Your task to perform on an android device: move a message to another label in the gmail app Image 0: 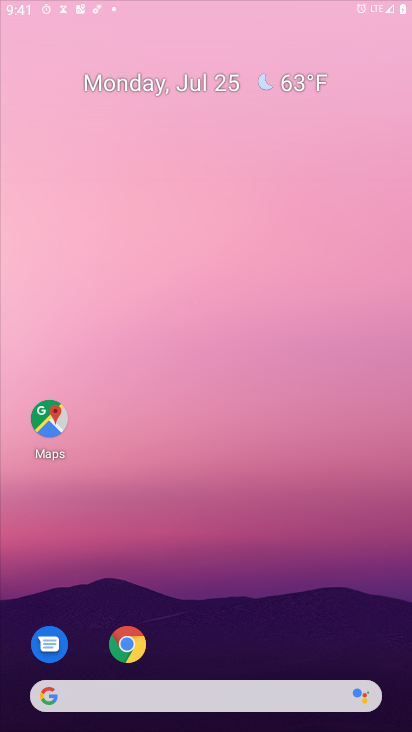
Step 0: drag from (229, 287) to (229, 225)
Your task to perform on an android device: move a message to another label in the gmail app Image 1: 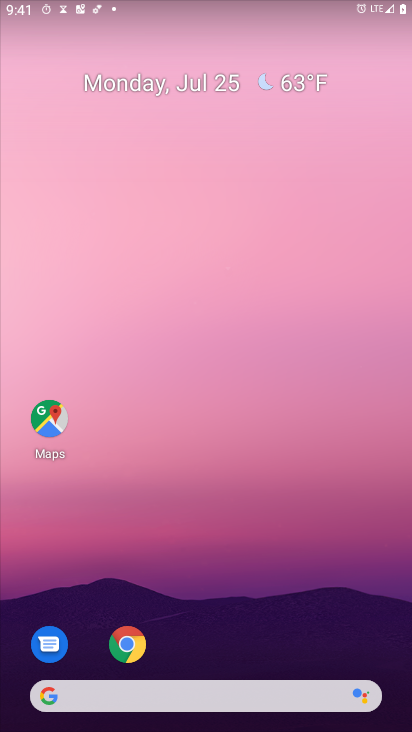
Step 1: drag from (249, 407) to (199, 3)
Your task to perform on an android device: move a message to another label in the gmail app Image 2: 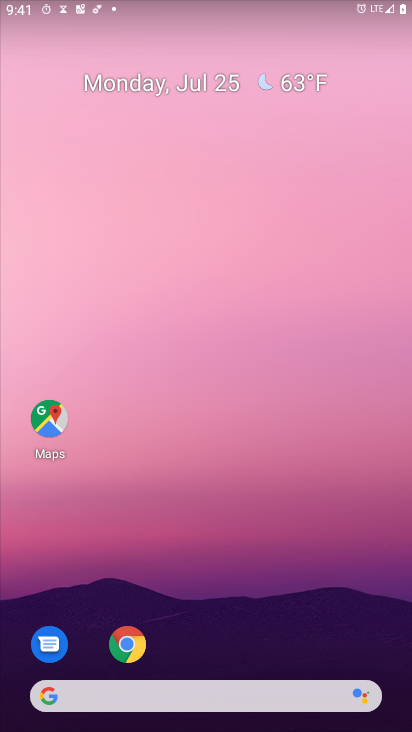
Step 2: drag from (209, 566) to (188, 135)
Your task to perform on an android device: move a message to another label in the gmail app Image 3: 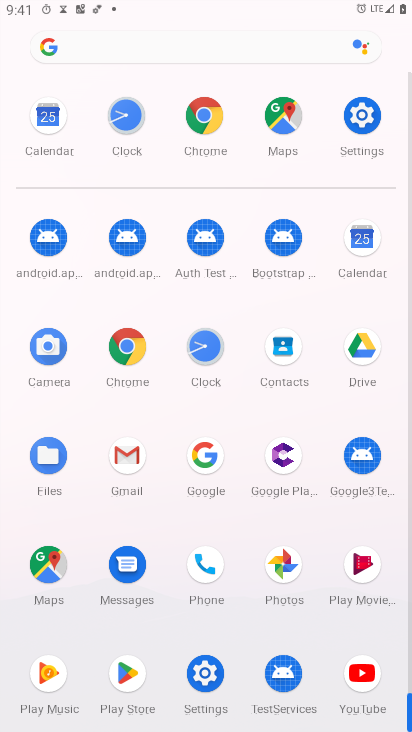
Step 3: drag from (223, 645) to (259, 31)
Your task to perform on an android device: move a message to another label in the gmail app Image 4: 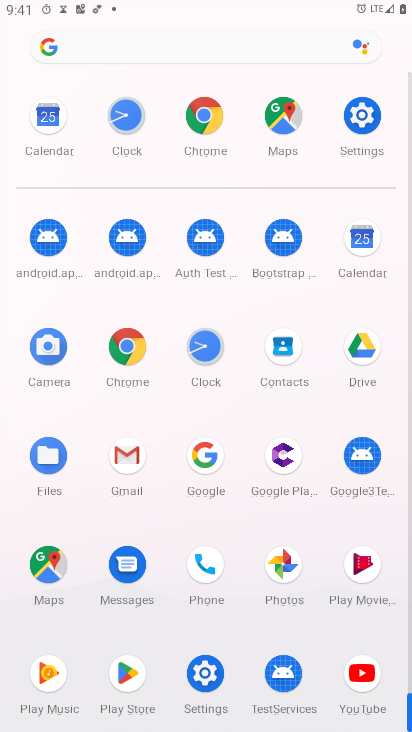
Step 4: click (130, 451)
Your task to perform on an android device: move a message to another label in the gmail app Image 5: 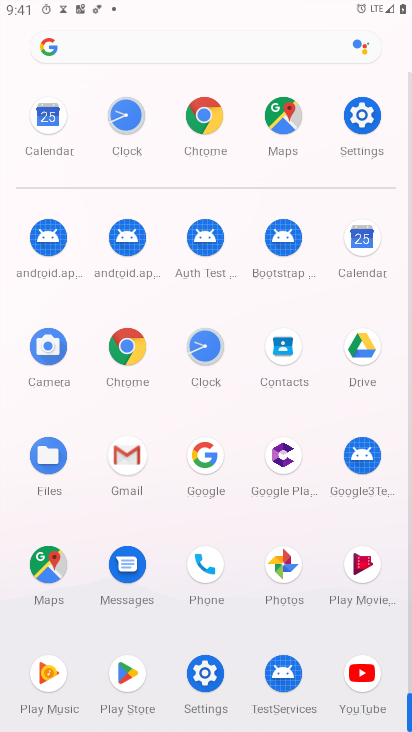
Step 5: click (130, 450)
Your task to perform on an android device: move a message to another label in the gmail app Image 6: 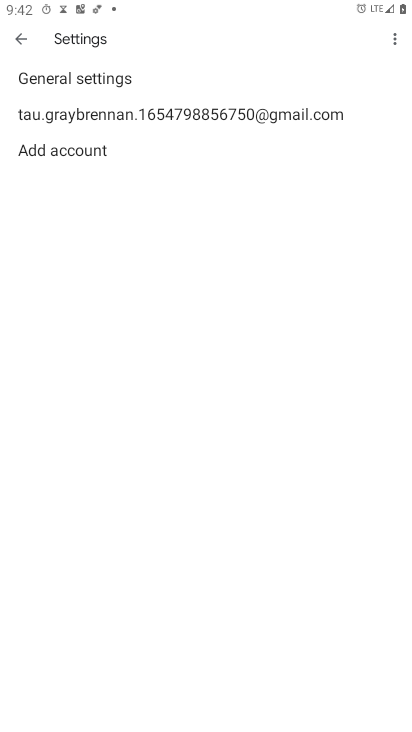
Step 6: click (76, 114)
Your task to perform on an android device: move a message to another label in the gmail app Image 7: 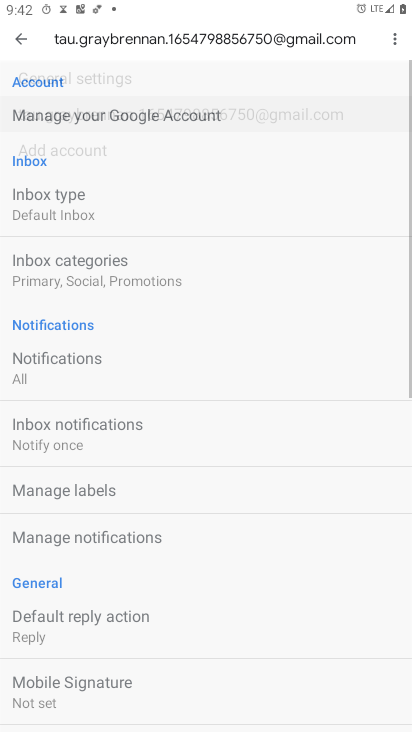
Step 7: click (20, 38)
Your task to perform on an android device: move a message to another label in the gmail app Image 8: 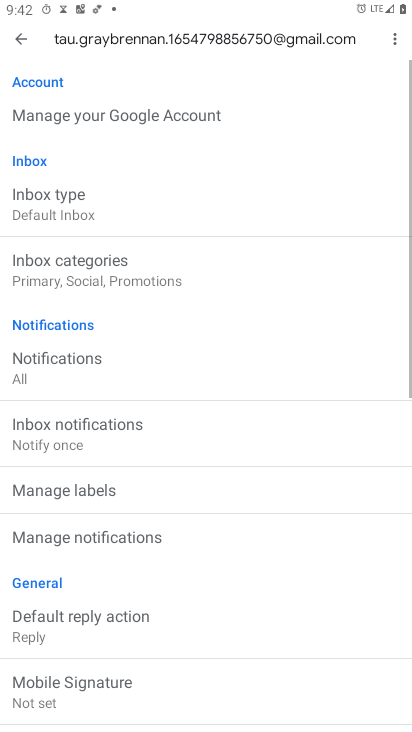
Step 8: click (9, 20)
Your task to perform on an android device: move a message to another label in the gmail app Image 9: 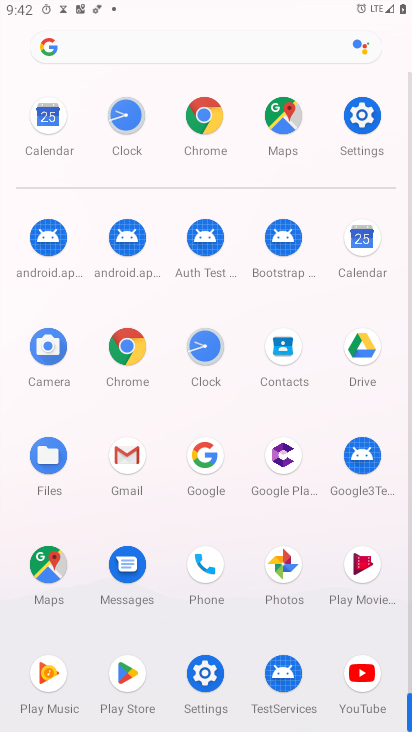
Step 9: click (28, 41)
Your task to perform on an android device: move a message to another label in the gmail app Image 10: 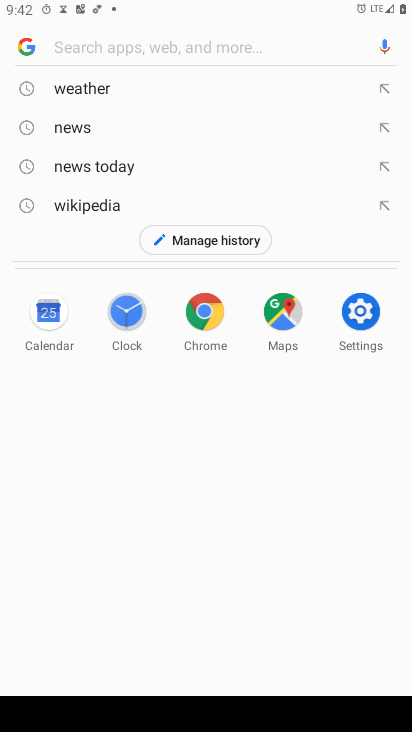
Step 10: press back button
Your task to perform on an android device: move a message to another label in the gmail app Image 11: 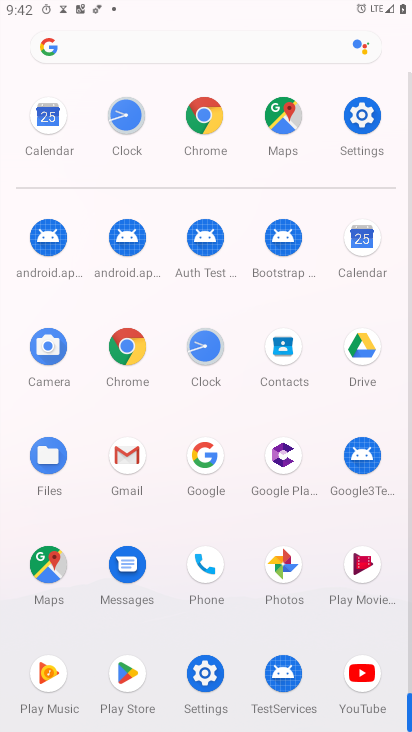
Step 11: click (143, 456)
Your task to perform on an android device: move a message to another label in the gmail app Image 12: 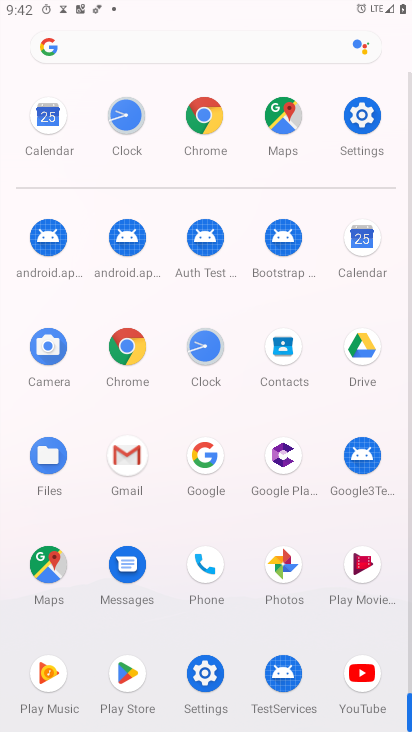
Step 12: click (138, 452)
Your task to perform on an android device: move a message to another label in the gmail app Image 13: 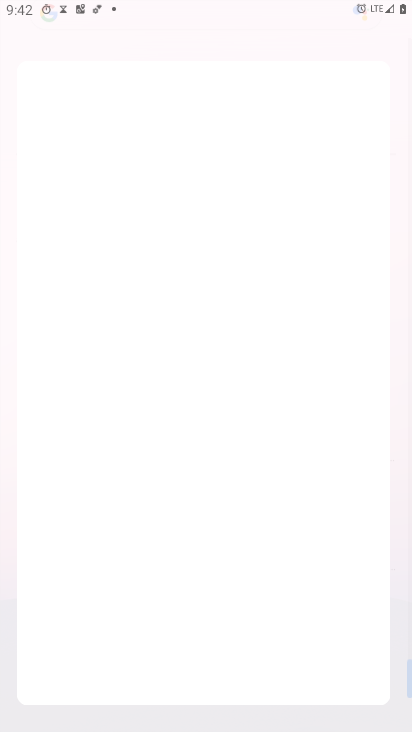
Step 13: click (137, 451)
Your task to perform on an android device: move a message to another label in the gmail app Image 14: 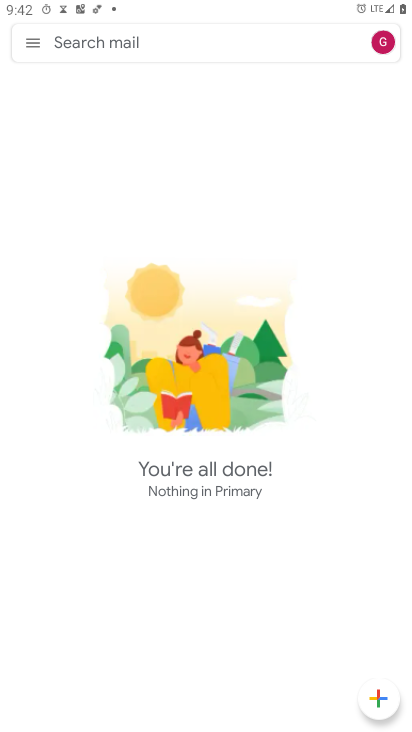
Step 14: click (34, 44)
Your task to perform on an android device: move a message to another label in the gmail app Image 15: 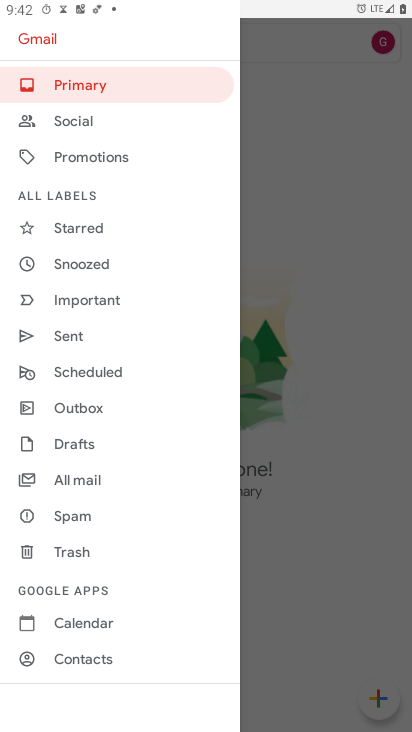
Step 15: click (102, 469)
Your task to perform on an android device: move a message to another label in the gmail app Image 16: 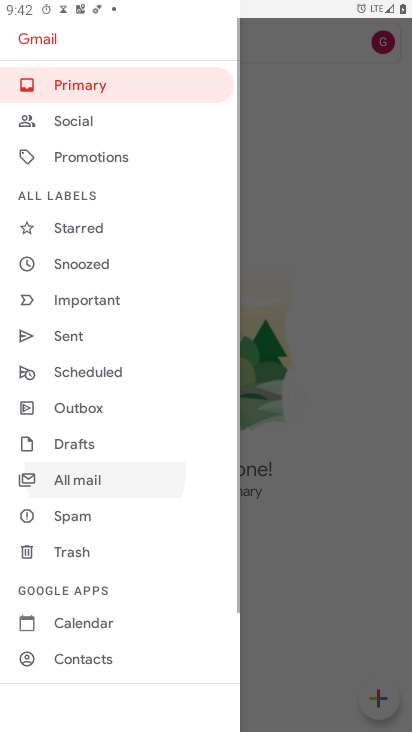
Step 16: click (99, 478)
Your task to perform on an android device: move a message to another label in the gmail app Image 17: 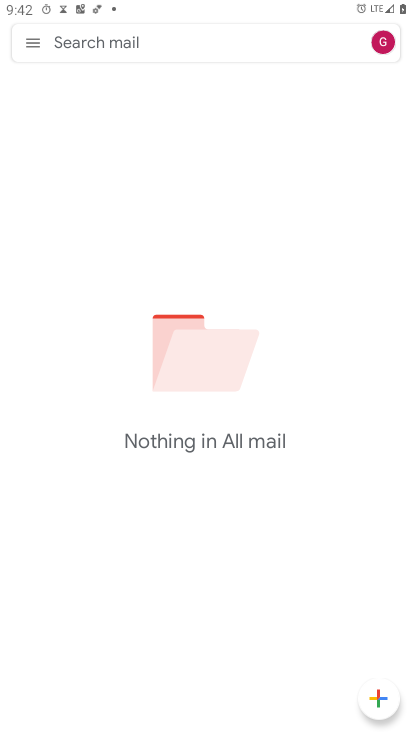
Step 17: task complete